Your task to perform on an android device: open app "Instagram" Image 0: 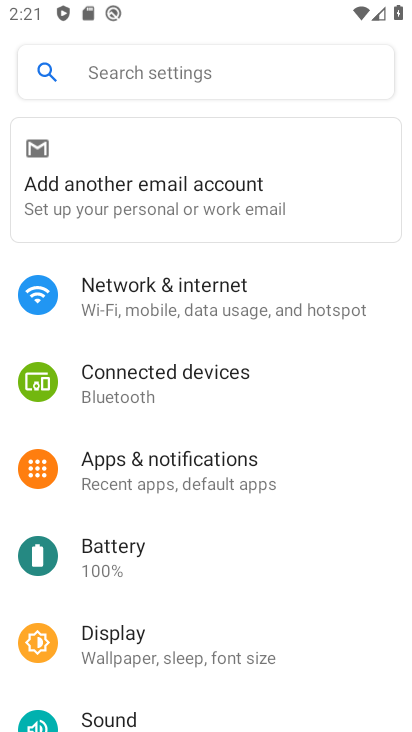
Step 0: press back button
Your task to perform on an android device: open app "Instagram" Image 1: 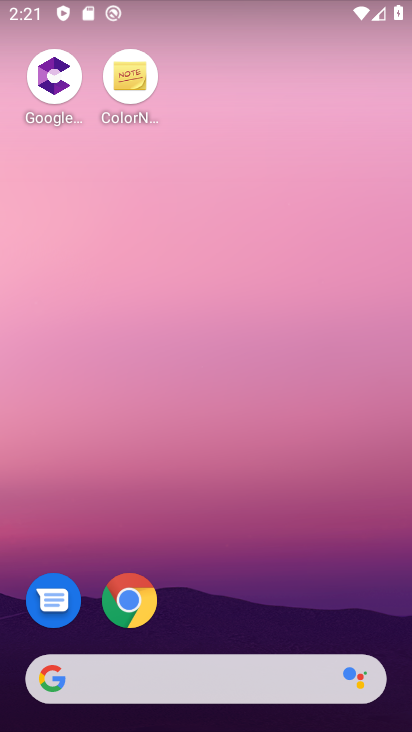
Step 1: drag from (231, 613) to (248, 47)
Your task to perform on an android device: open app "Instagram" Image 2: 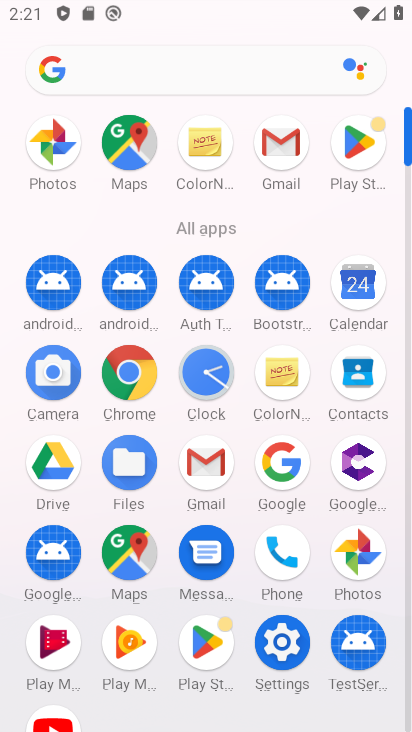
Step 2: click (369, 146)
Your task to perform on an android device: open app "Instagram" Image 3: 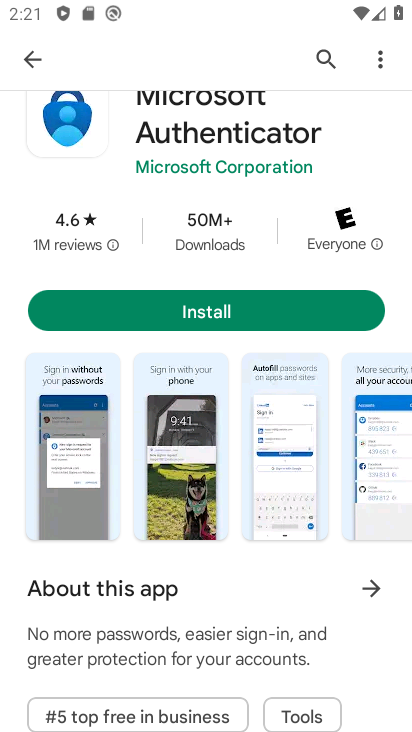
Step 3: click (337, 60)
Your task to perform on an android device: open app "Instagram" Image 4: 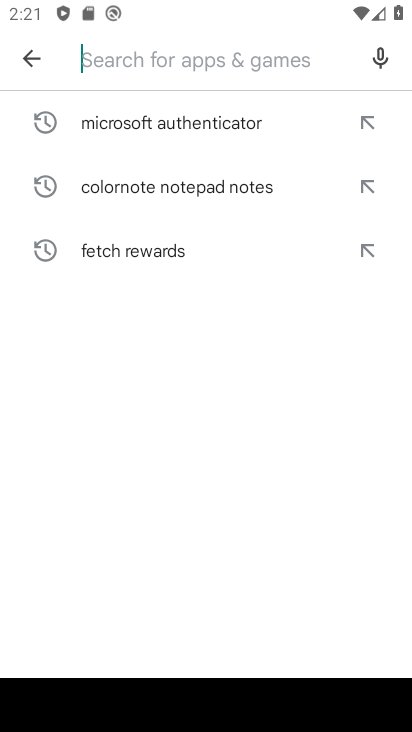
Step 4: click (152, 56)
Your task to perform on an android device: open app "Instagram" Image 5: 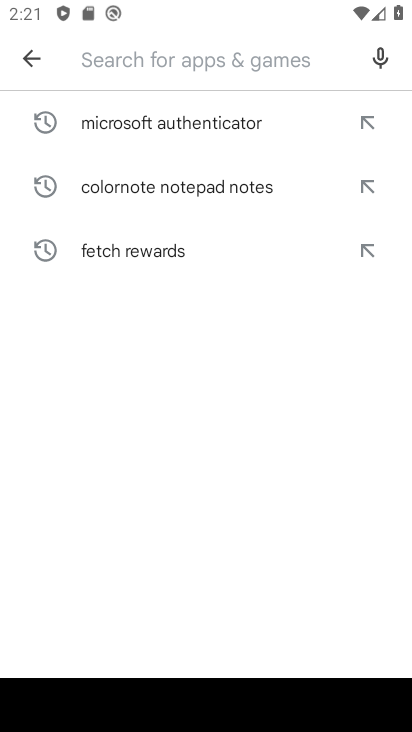
Step 5: type "instagram"
Your task to perform on an android device: open app "Instagram" Image 6: 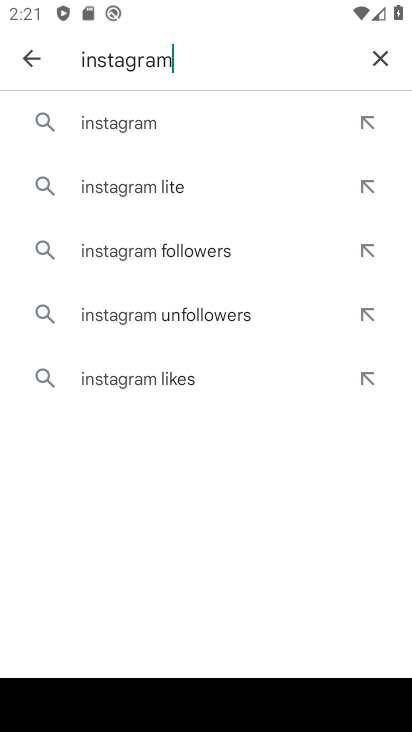
Step 6: click (109, 120)
Your task to perform on an android device: open app "Instagram" Image 7: 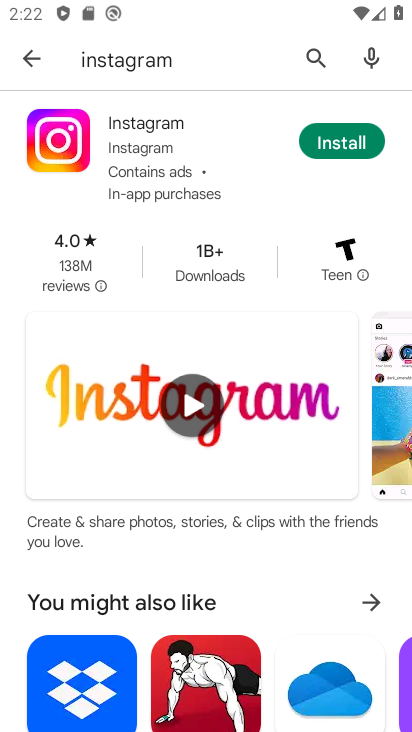
Step 7: task complete